Your task to perform on an android device: turn on data saver in the chrome app Image 0: 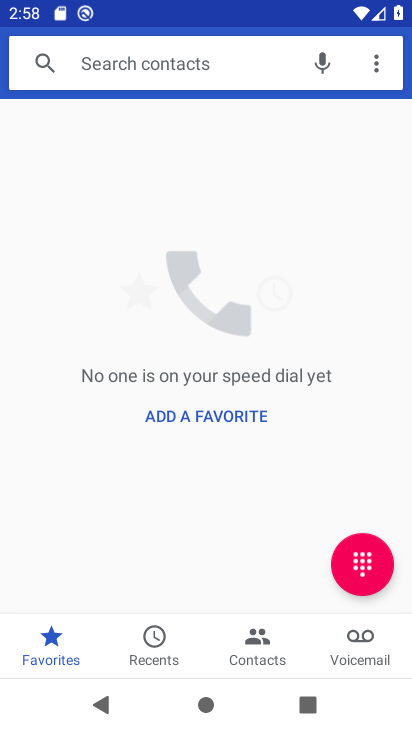
Step 0: press home button
Your task to perform on an android device: turn on data saver in the chrome app Image 1: 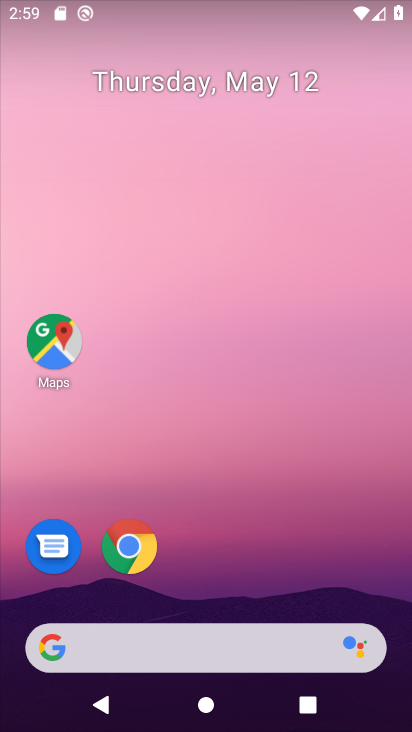
Step 1: drag from (243, 706) to (400, 537)
Your task to perform on an android device: turn on data saver in the chrome app Image 2: 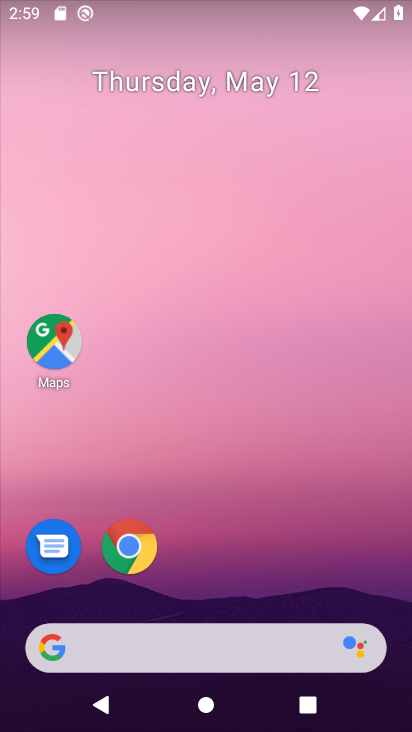
Step 2: drag from (219, 555) to (219, 141)
Your task to perform on an android device: turn on data saver in the chrome app Image 3: 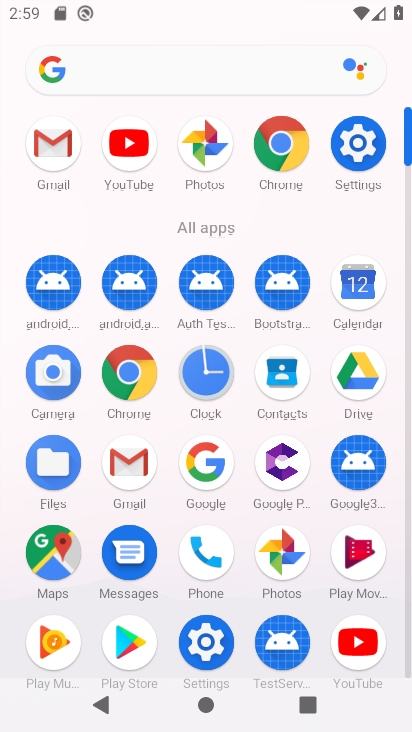
Step 3: click (265, 141)
Your task to perform on an android device: turn on data saver in the chrome app Image 4: 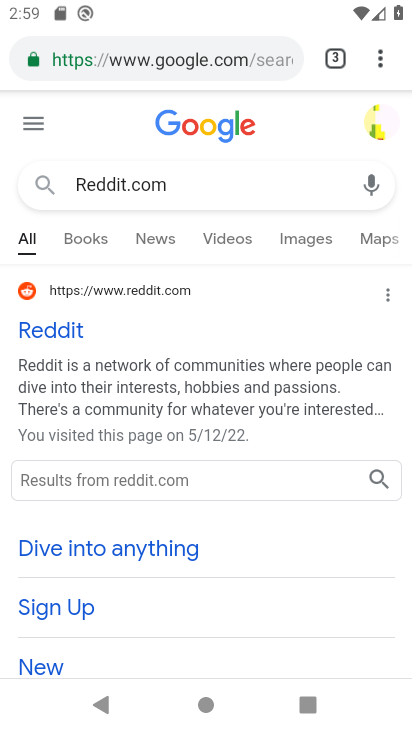
Step 4: click (363, 59)
Your task to perform on an android device: turn on data saver in the chrome app Image 5: 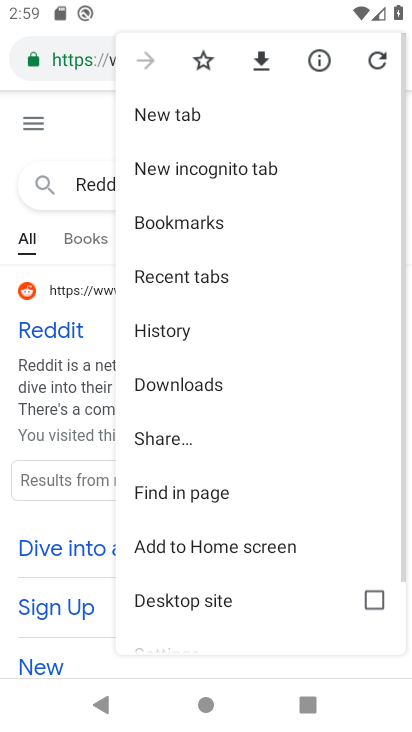
Step 5: drag from (224, 584) to (296, 208)
Your task to perform on an android device: turn on data saver in the chrome app Image 6: 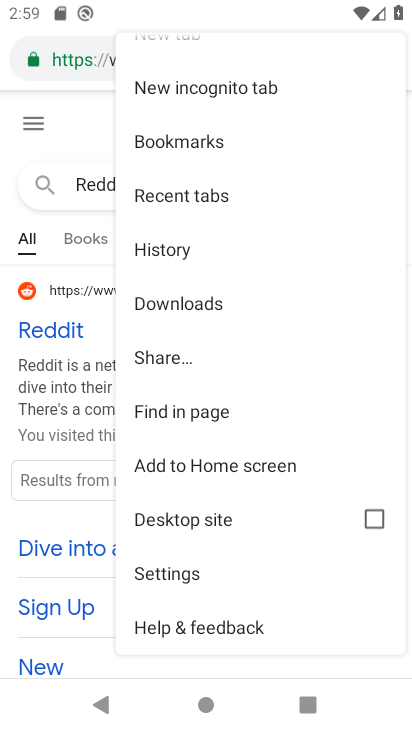
Step 6: click (188, 573)
Your task to perform on an android device: turn on data saver in the chrome app Image 7: 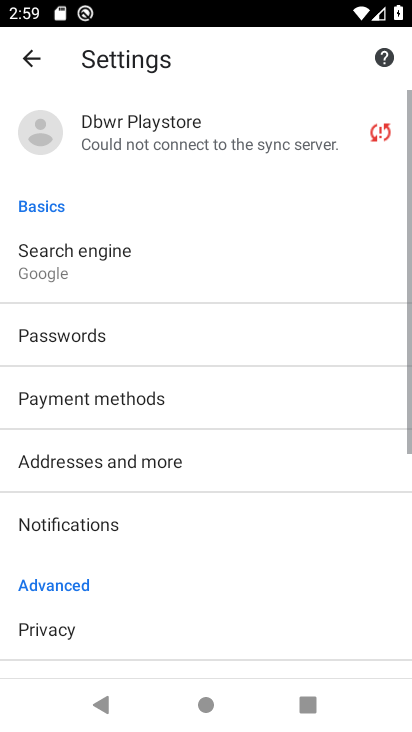
Step 7: drag from (160, 592) to (221, 180)
Your task to perform on an android device: turn on data saver in the chrome app Image 8: 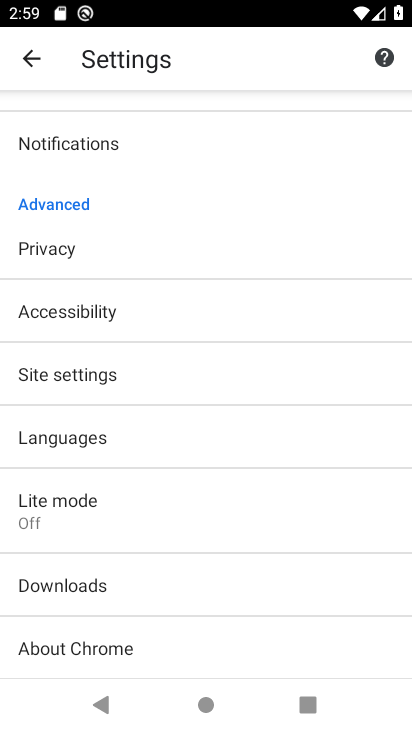
Step 8: click (83, 515)
Your task to perform on an android device: turn on data saver in the chrome app Image 9: 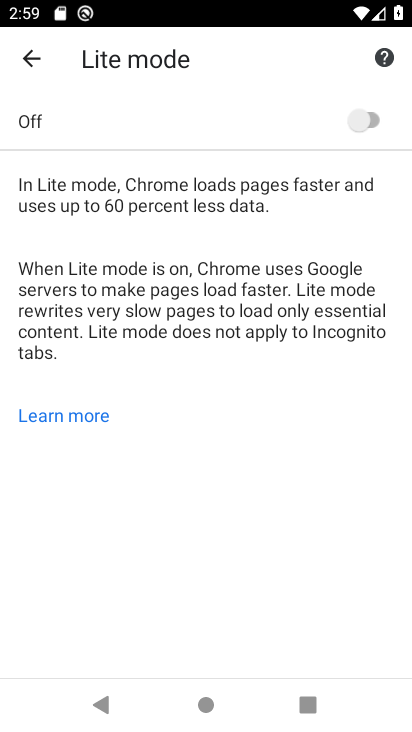
Step 9: click (356, 112)
Your task to perform on an android device: turn on data saver in the chrome app Image 10: 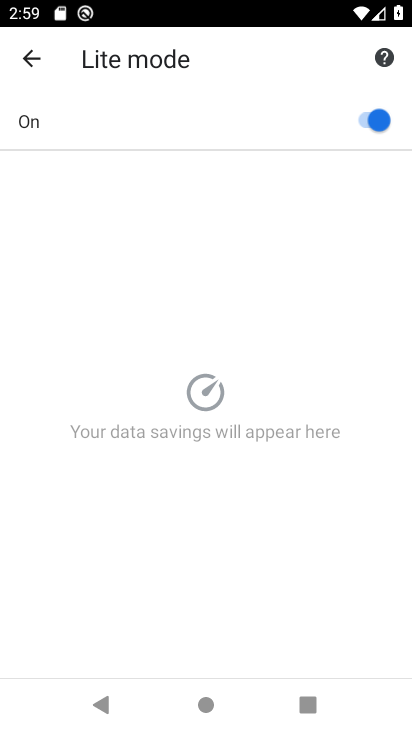
Step 10: task complete